Your task to perform on an android device: Open Chrome and go to the settings page Image 0: 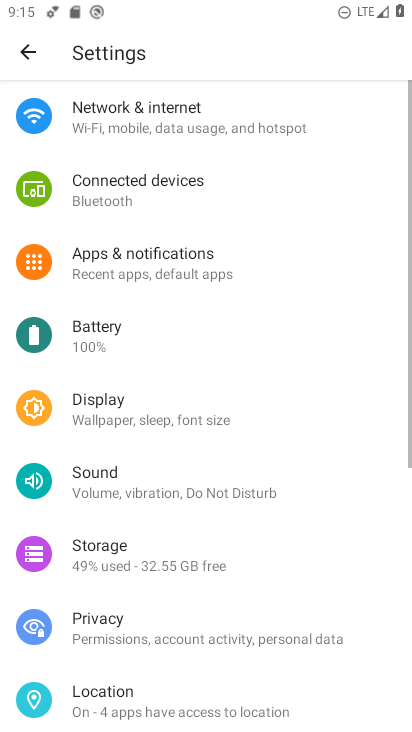
Step 0: press home button
Your task to perform on an android device: Open Chrome and go to the settings page Image 1: 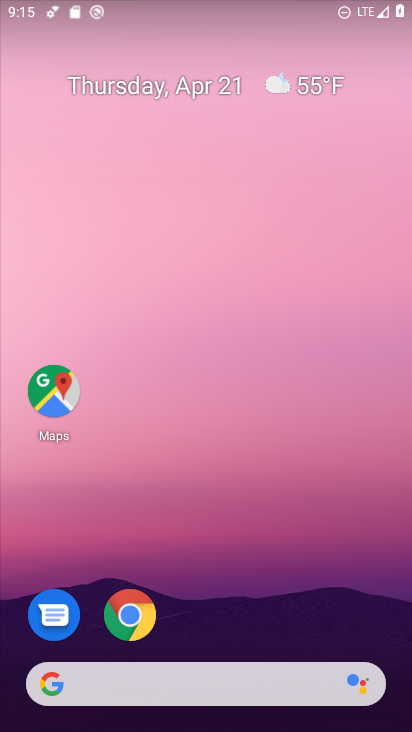
Step 1: click (133, 600)
Your task to perform on an android device: Open Chrome and go to the settings page Image 2: 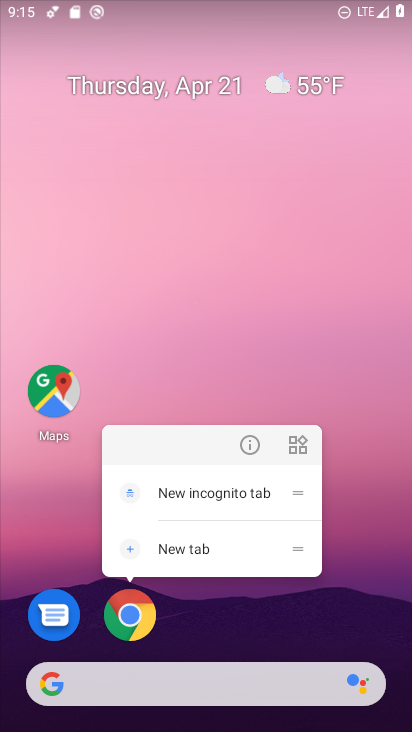
Step 2: click (132, 619)
Your task to perform on an android device: Open Chrome and go to the settings page Image 3: 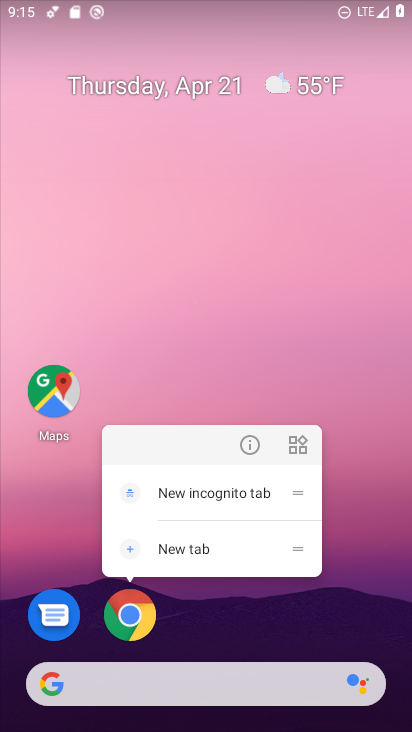
Step 3: click (132, 618)
Your task to perform on an android device: Open Chrome and go to the settings page Image 4: 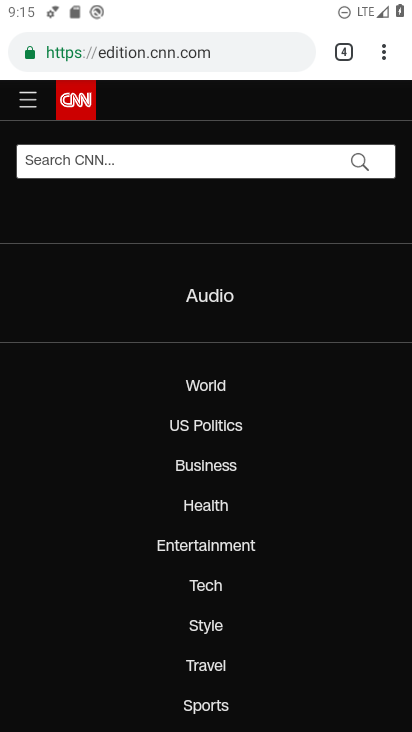
Step 4: task complete